Your task to perform on an android device: delete the emails in spam in the gmail app Image 0: 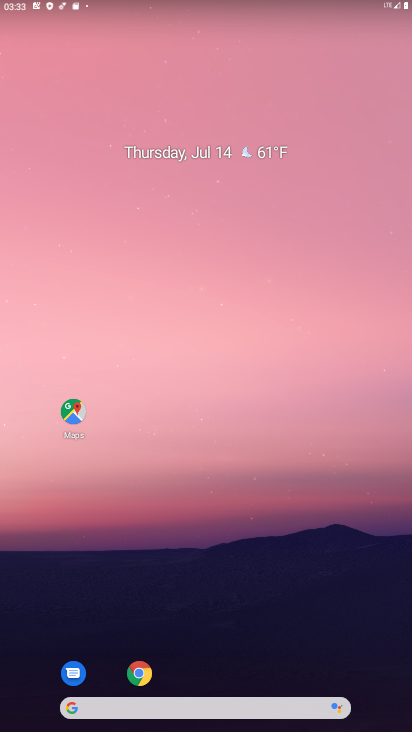
Step 0: drag from (273, 626) to (283, 5)
Your task to perform on an android device: delete the emails in spam in the gmail app Image 1: 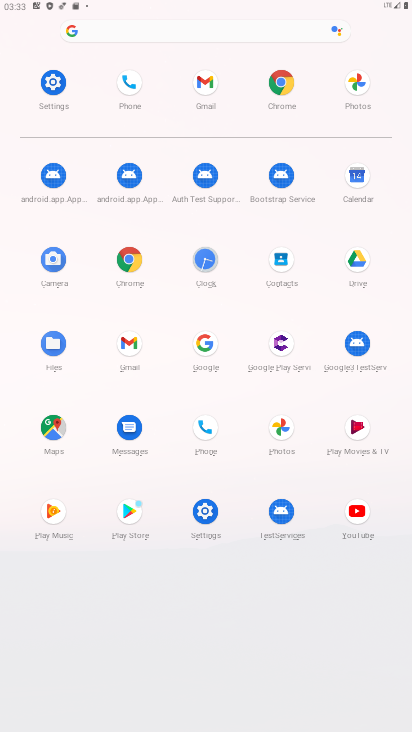
Step 1: task complete